Your task to perform on an android device: turn on javascript in the chrome app Image 0: 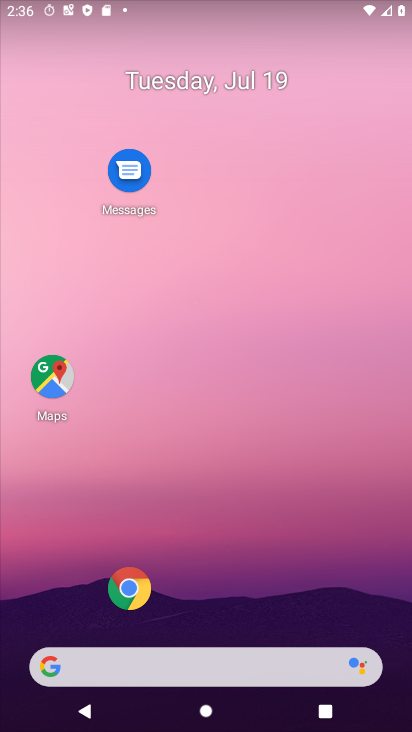
Step 0: click (133, 578)
Your task to perform on an android device: turn on javascript in the chrome app Image 1: 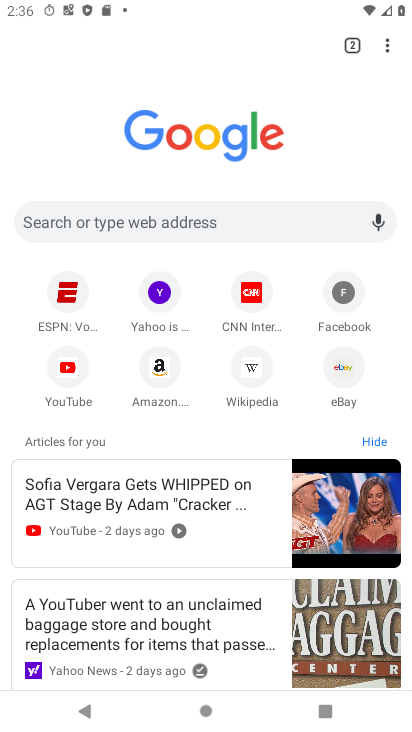
Step 1: click (389, 50)
Your task to perform on an android device: turn on javascript in the chrome app Image 2: 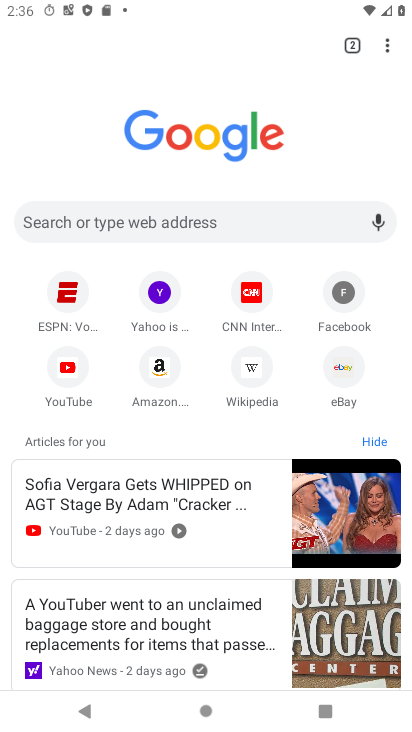
Step 2: click (384, 43)
Your task to perform on an android device: turn on javascript in the chrome app Image 3: 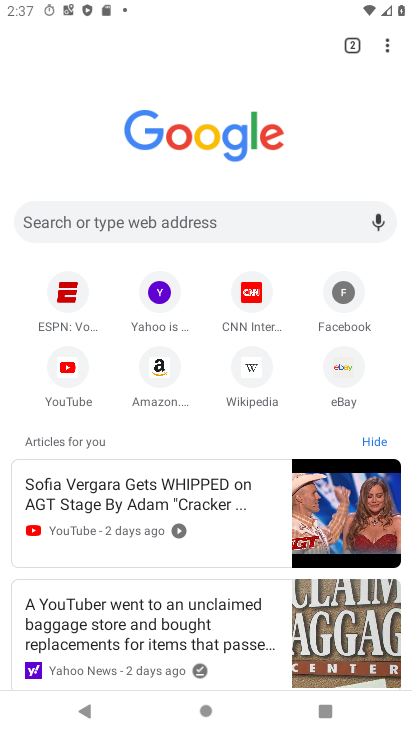
Step 3: click (388, 44)
Your task to perform on an android device: turn on javascript in the chrome app Image 4: 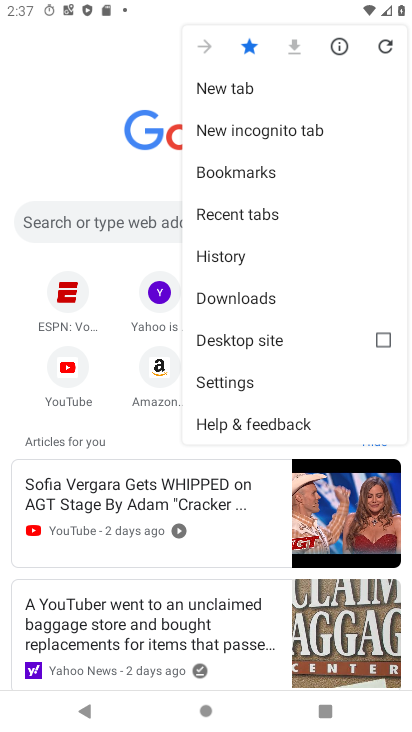
Step 4: click (238, 381)
Your task to perform on an android device: turn on javascript in the chrome app Image 5: 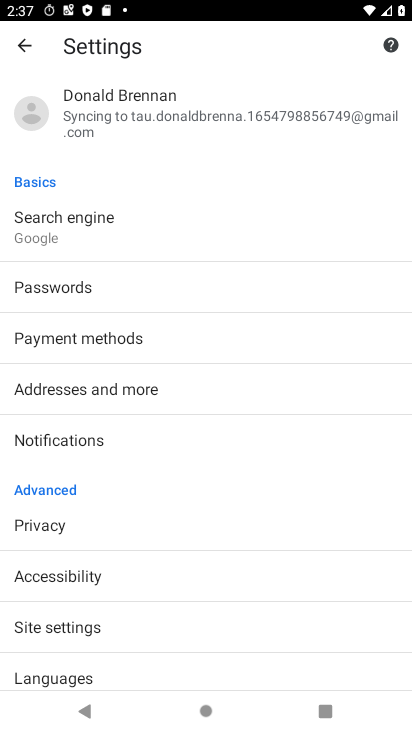
Step 5: click (56, 636)
Your task to perform on an android device: turn on javascript in the chrome app Image 6: 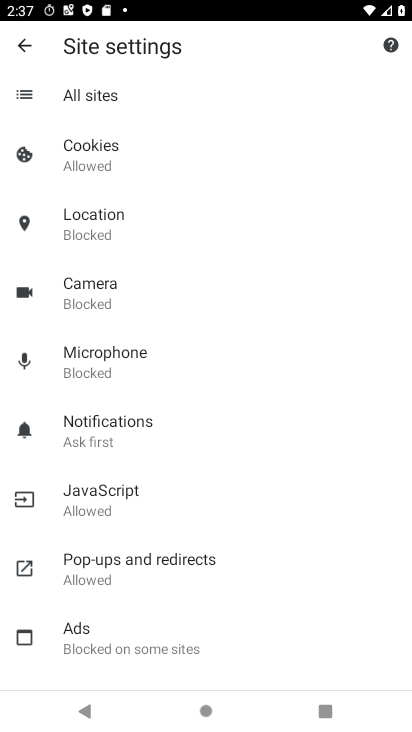
Step 6: click (129, 506)
Your task to perform on an android device: turn on javascript in the chrome app Image 7: 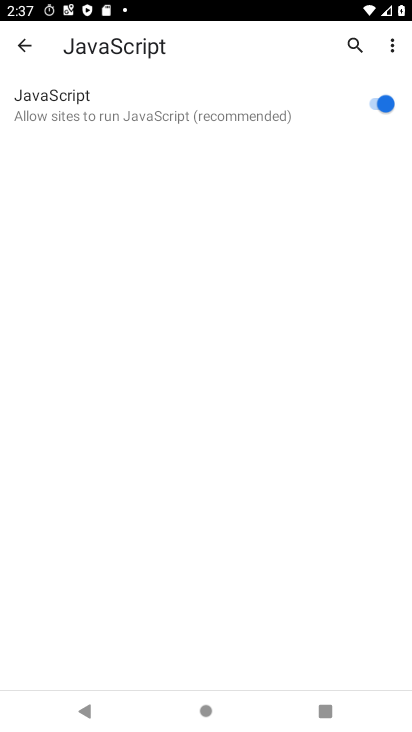
Step 7: task complete